Your task to perform on an android device: toggle translation in the chrome app Image 0: 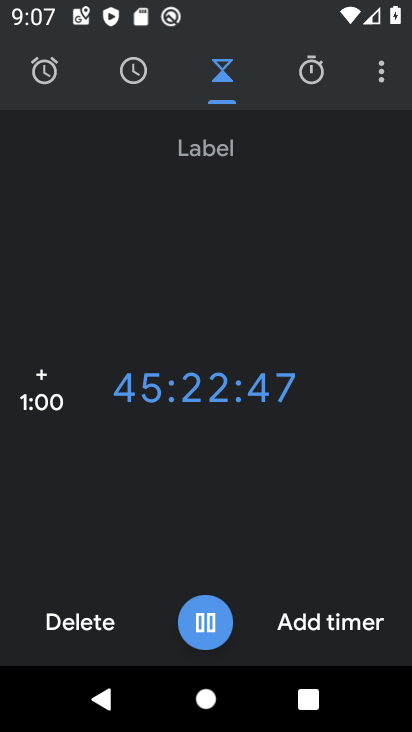
Step 0: press home button
Your task to perform on an android device: toggle translation in the chrome app Image 1: 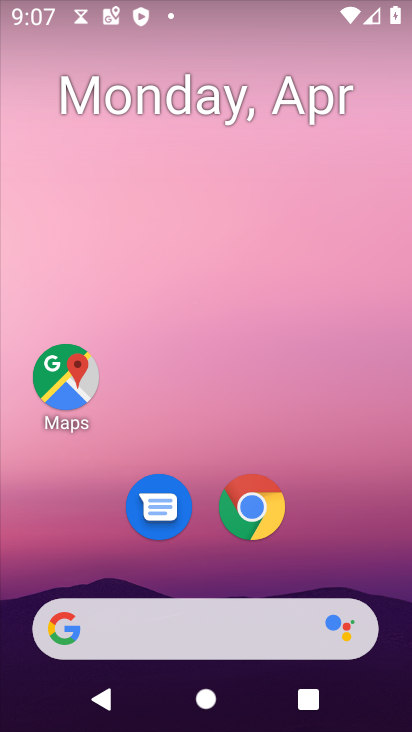
Step 1: click (265, 520)
Your task to perform on an android device: toggle translation in the chrome app Image 2: 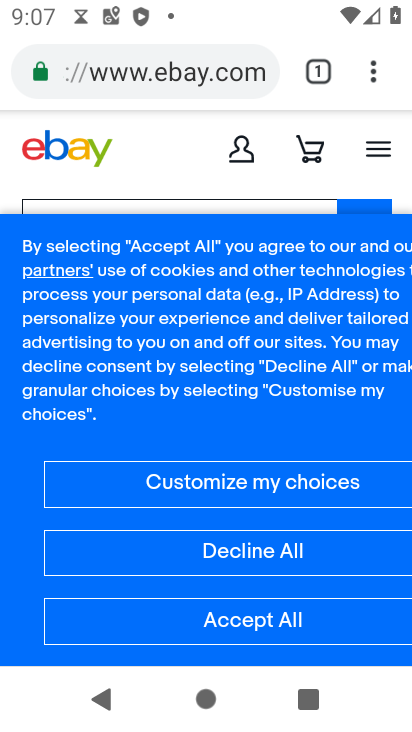
Step 2: click (374, 71)
Your task to perform on an android device: toggle translation in the chrome app Image 3: 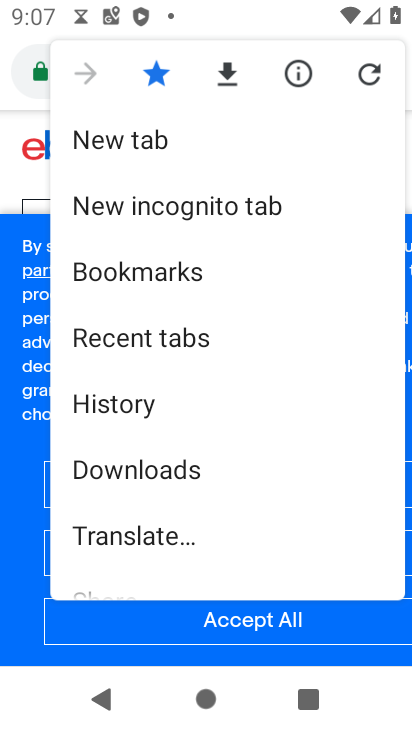
Step 3: drag from (235, 538) to (257, 232)
Your task to perform on an android device: toggle translation in the chrome app Image 4: 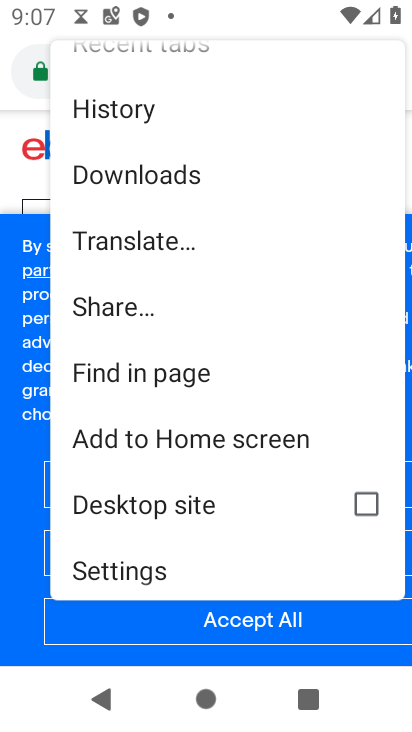
Step 4: click (172, 558)
Your task to perform on an android device: toggle translation in the chrome app Image 5: 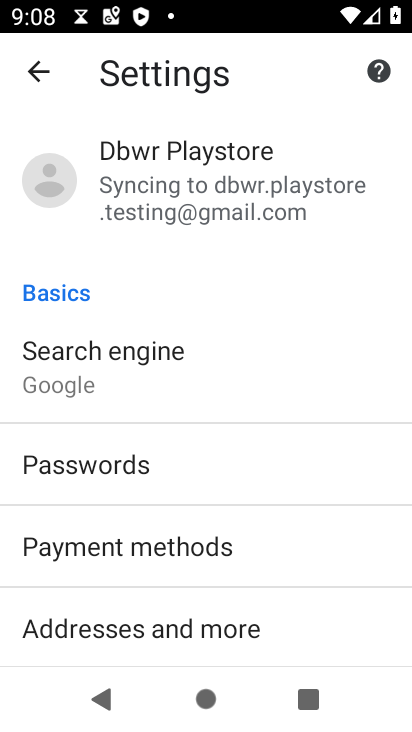
Step 5: drag from (182, 579) to (280, 307)
Your task to perform on an android device: toggle translation in the chrome app Image 6: 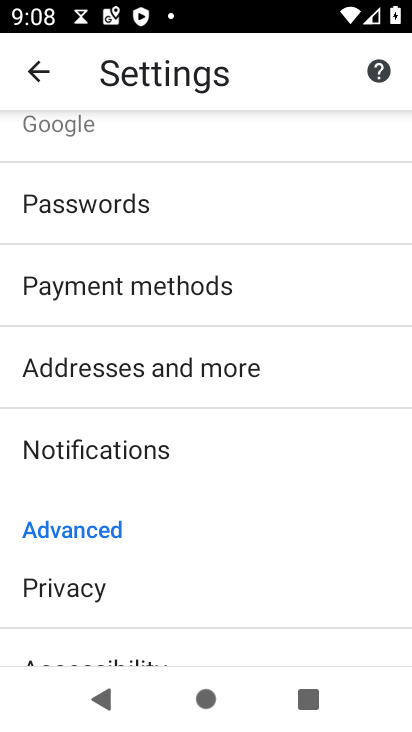
Step 6: drag from (161, 605) to (202, 489)
Your task to perform on an android device: toggle translation in the chrome app Image 7: 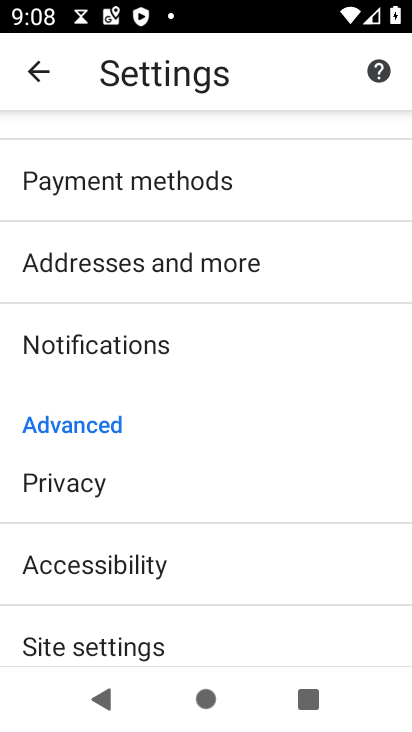
Step 7: drag from (147, 613) to (216, 427)
Your task to perform on an android device: toggle translation in the chrome app Image 8: 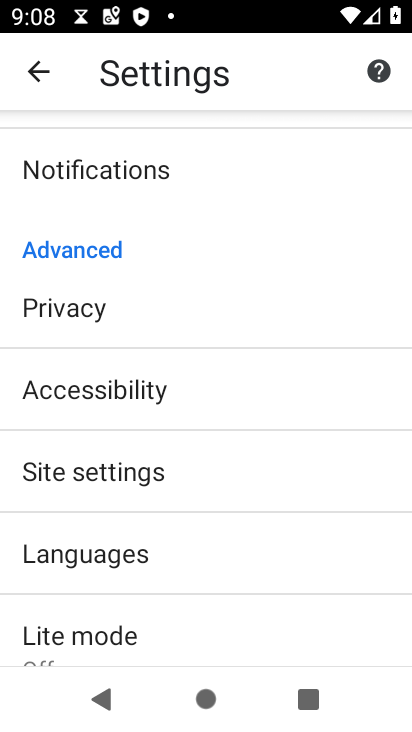
Step 8: click (156, 555)
Your task to perform on an android device: toggle translation in the chrome app Image 9: 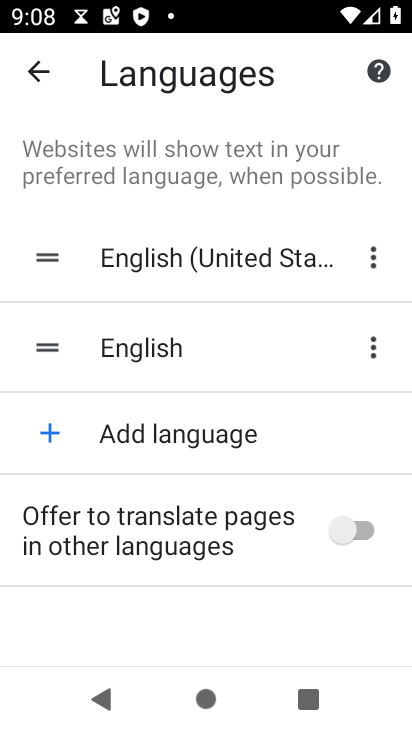
Step 9: click (342, 527)
Your task to perform on an android device: toggle translation in the chrome app Image 10: 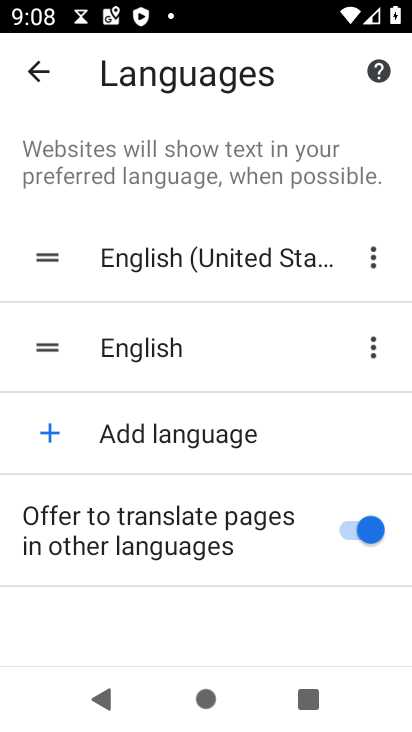
Step 10: task complete